Your task to perform on an android device: Clear the shopping cart on newegg.com. Add "usb-c" to the cart on newegg.com Image 0: 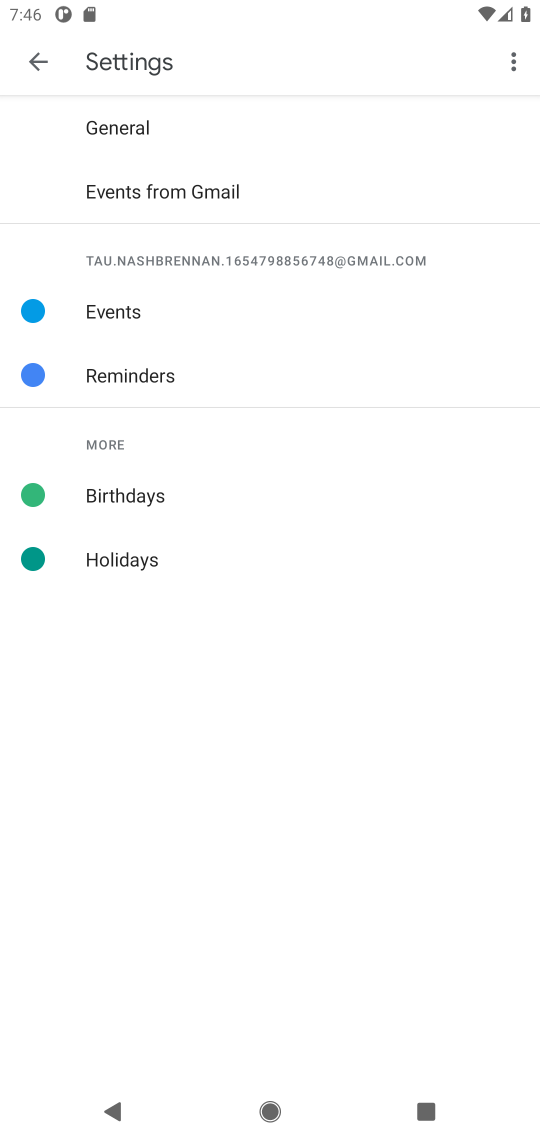
Step 0: press home button
Your task to perform on an android device: Clear the shopping cart on newegg.com. Add "usb-c" to the cart on newegg.com Image 1: 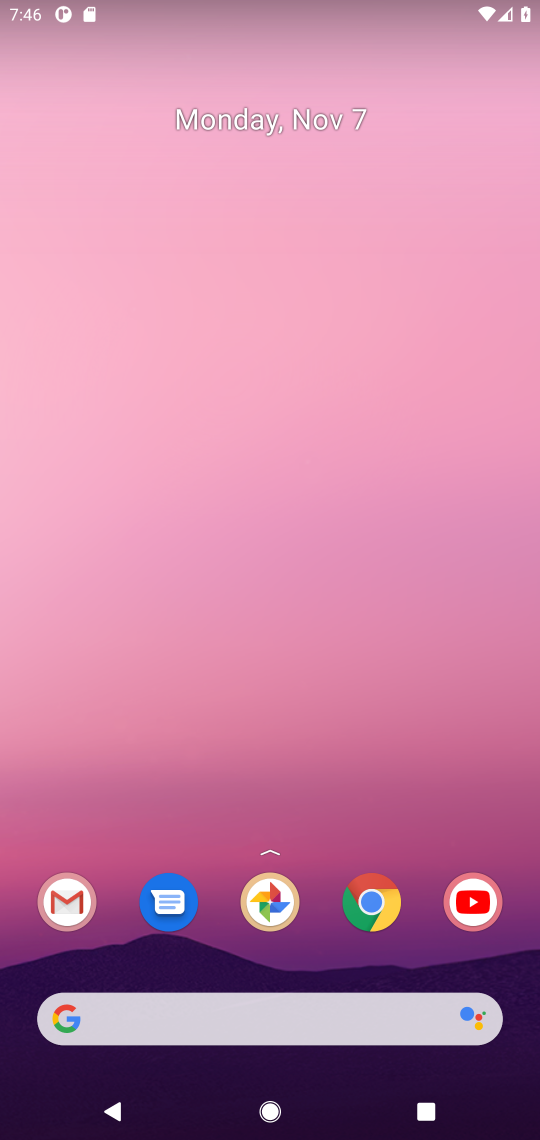
Step 1: click (373, 903)
Your task to perform on an android device: Clear the shopping cart on newegg.com. Add "usb-c" to the cart on newegg.com Image 2: 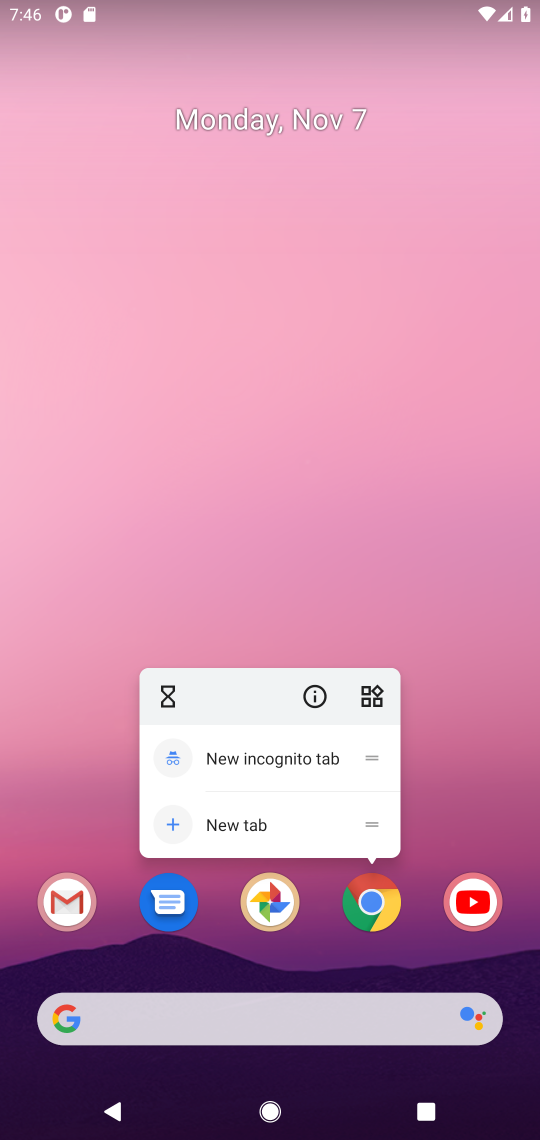
Step 2: click (373, 903)
Your task to perform on an android device: Clear the shopping cart on newegg.com. Add "usb-c" to the cart on newegg.com Image 3: 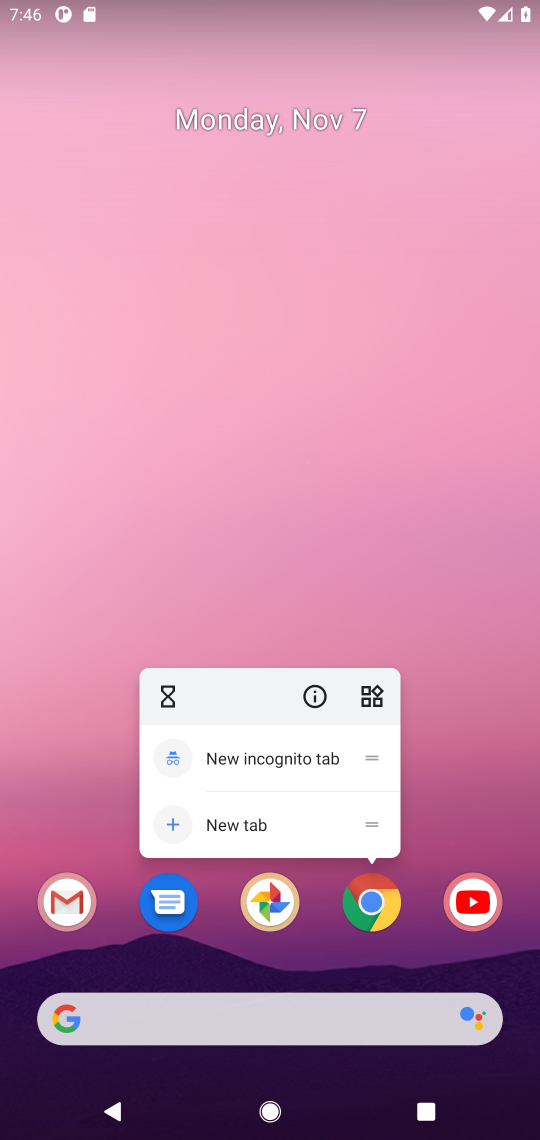
Step 3: click (377, 903)
Your task to perform on an android device: Clear the shopping cart on newegg.com. Add "usb-c" to the cart on newegg.com Image 4: 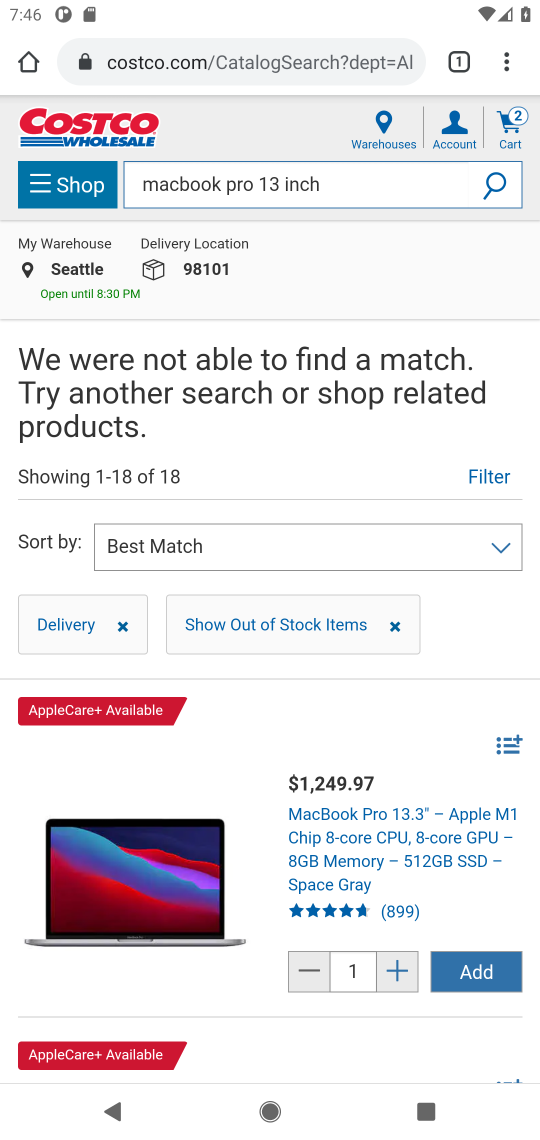
Step 4: click (232, 58)
Your task to perform on an android device: Clear the shopping cart on newegg.com. Add "usb-c" to the cart on newegg.com Image 5: 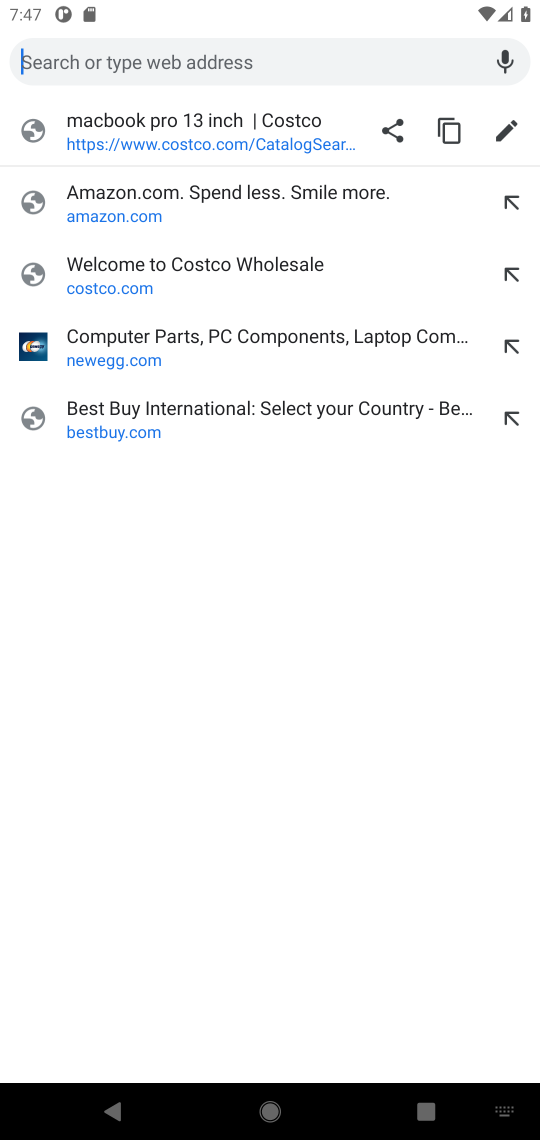
Step 5: click (105, 339)
Your task to perform on an android device: Clear the shopping cart on newegg.com. Add "usb-c" to the cart on newegg.com Image 6: 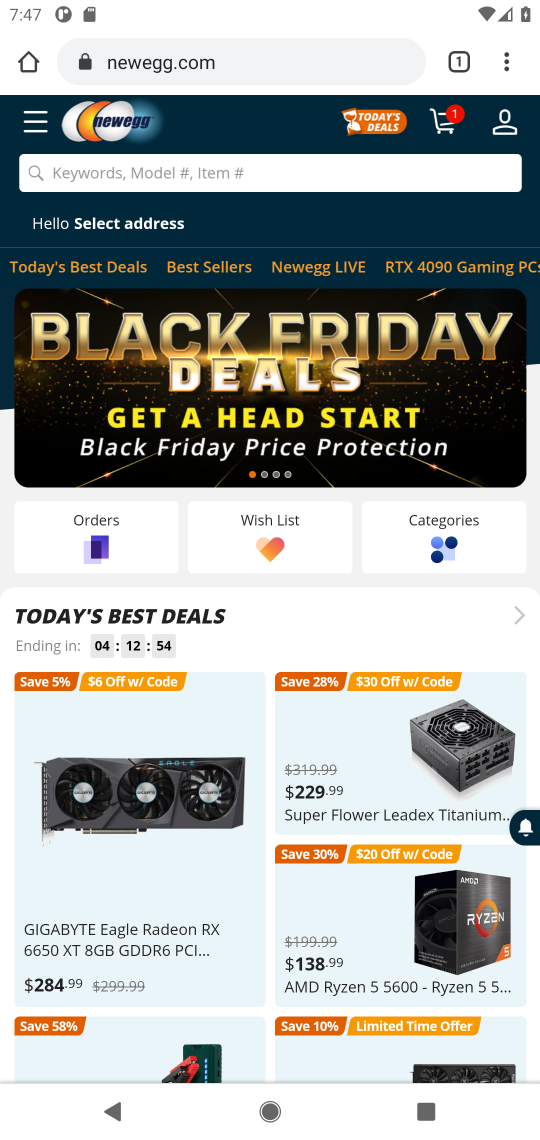
Step 6: click (444, 127)
Your task to perform on an android device: Clear the shopping cart on newegg.com. Add "usb-c" to the cart on newegg.com Image 7: 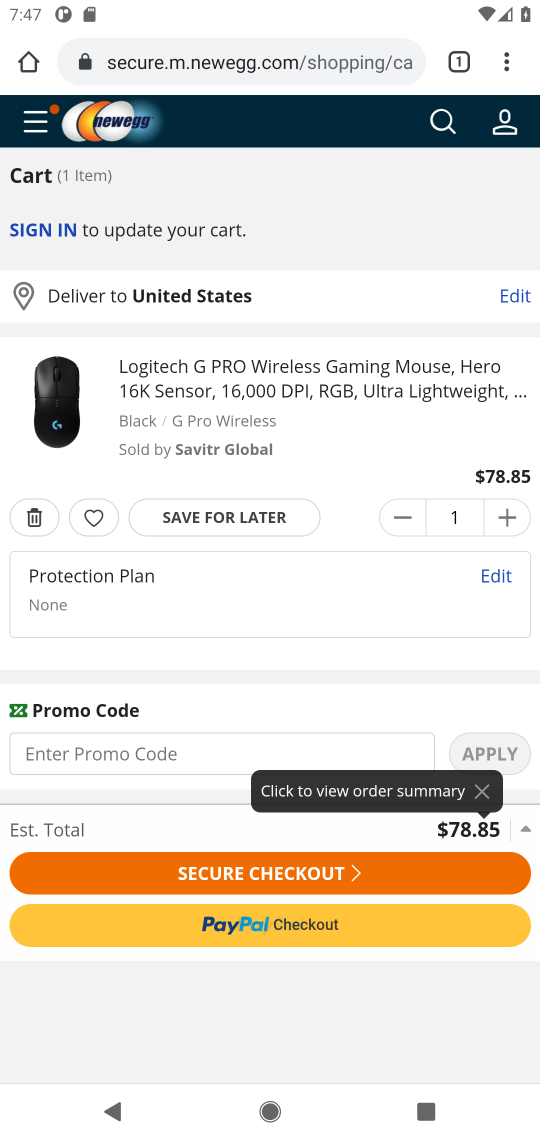
Step 7: click (18, 505)
Your task to perform on an android device: Clear the shopping cart on newegg.com. Add "usb-c" to the cart on newegg.com Image 8: 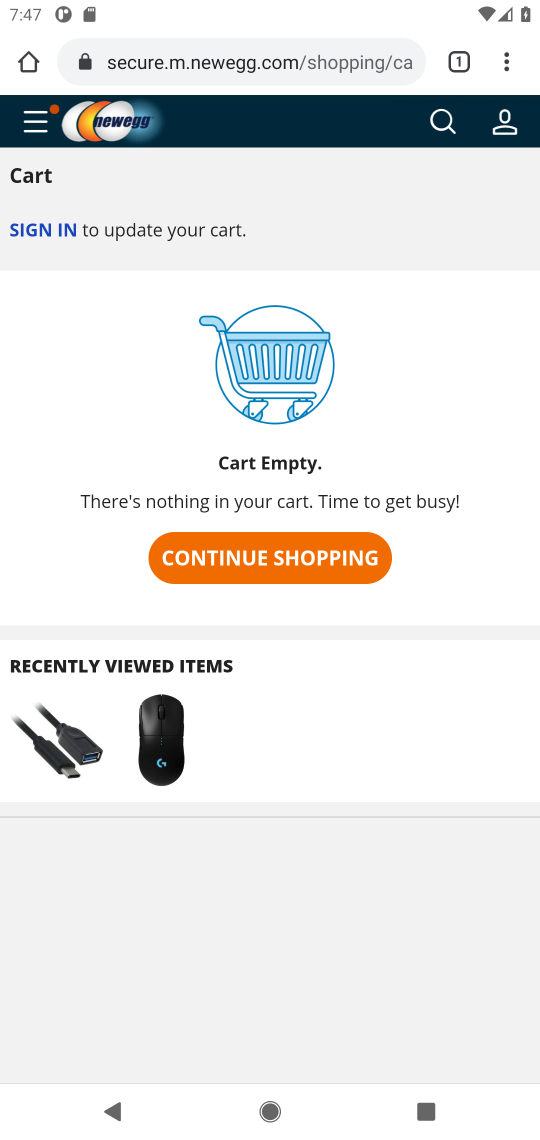
Step 8: click (432, 124)
Your task to perform on an android device: Clear the shopping cart on newegg.com. Add "usb-c" to the cart on newegg.com Image 9: 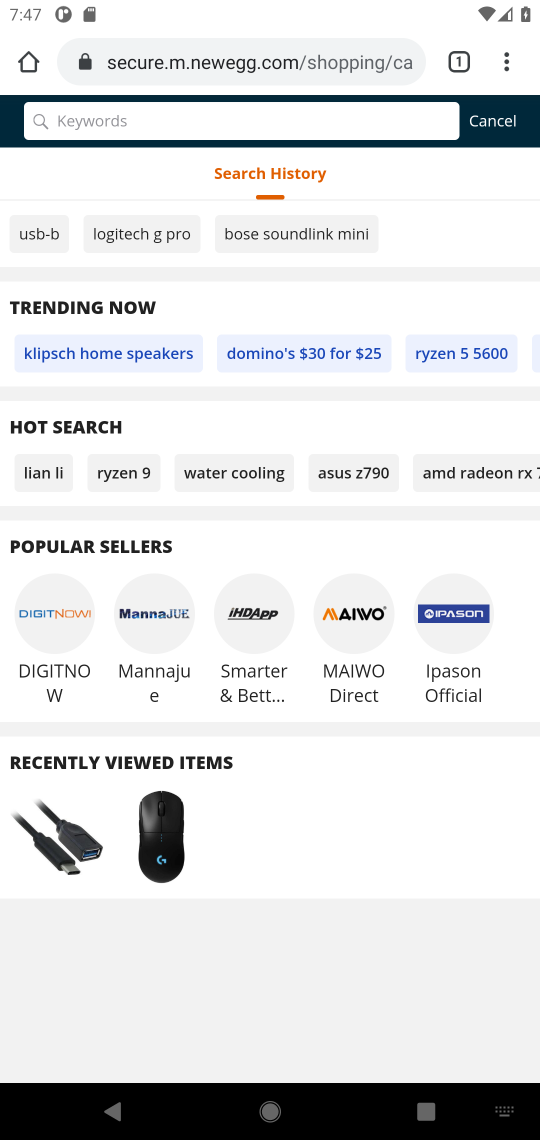
Step 9: type "usb-c"
Your task to perform on an android device: Clear the shopping cart on newegg.com. Add "usb-c" to the cart on newegg.com Image 10: 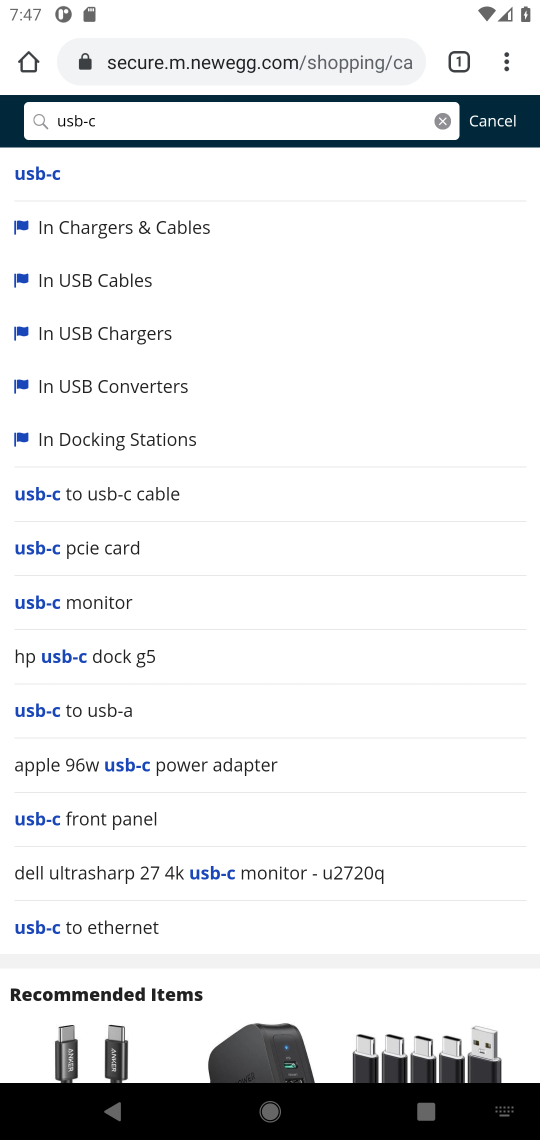
Step 10: click (39, 179)
Your task to perform on an android device: Clear the shopping cart on newegg.com. Add "usb-c" to the cart on newegg.com Image 11: 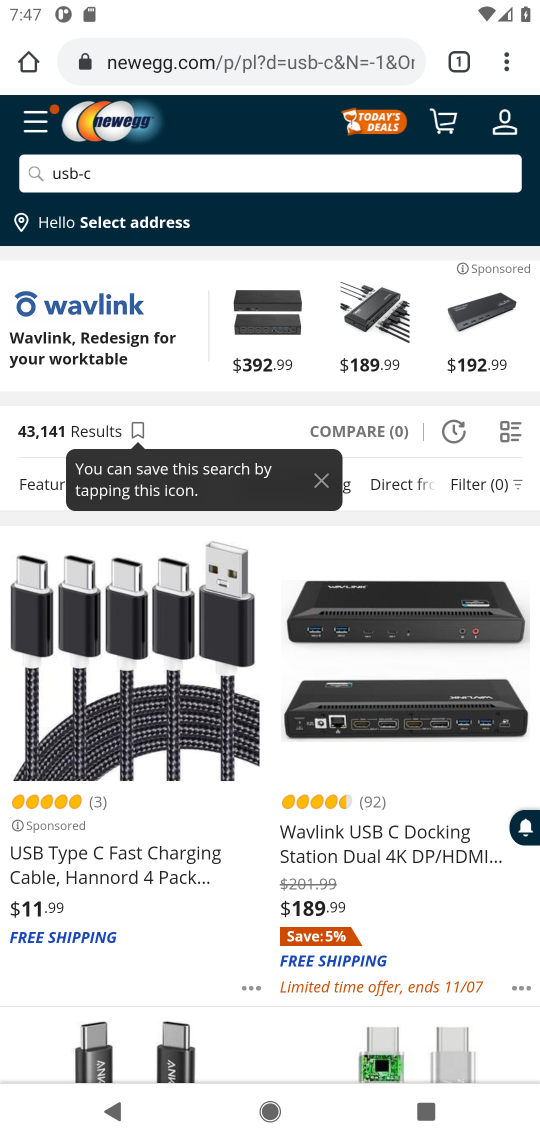
Step 11: click (102, 757)
Your task to perform on an android device: Clear the shopping cart on newegg.com. Add "usb-c" to the cart on newegg.com Image 12: 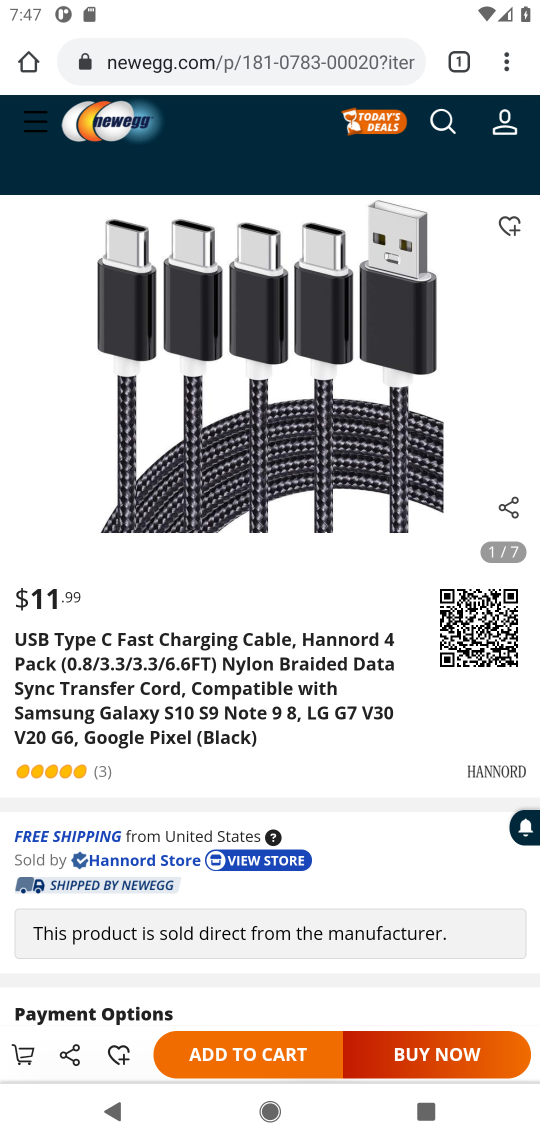
Step 12: click (250, 1049)
Your task to perform on an android device: Clear the shopping cart on newegg.com. Add "usb-c" to the cart on newegg.com Image 13: 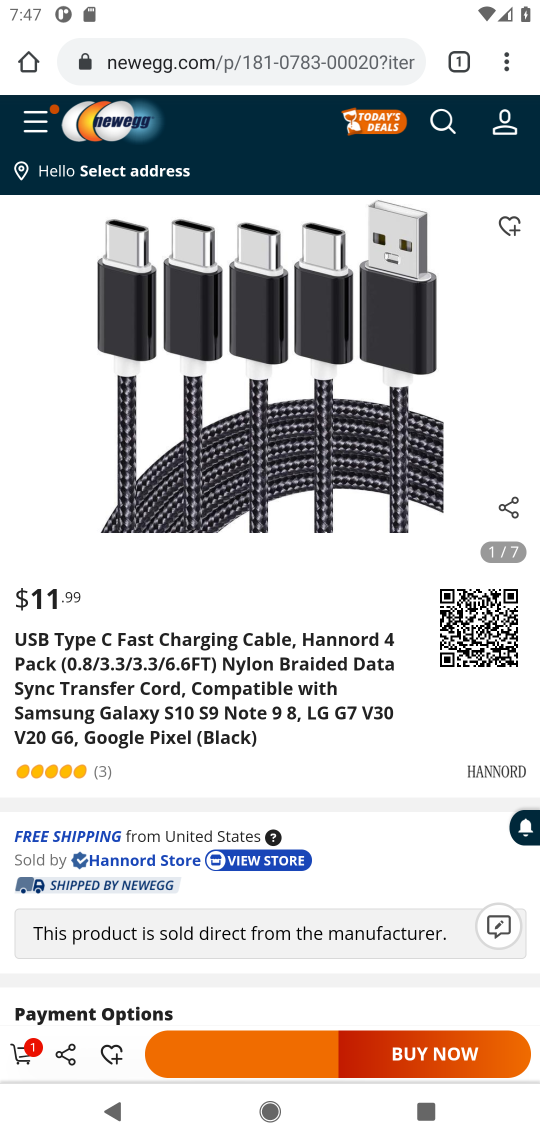
Step 13: task complete